Your task to perform on an android device: delete location history Image 0: 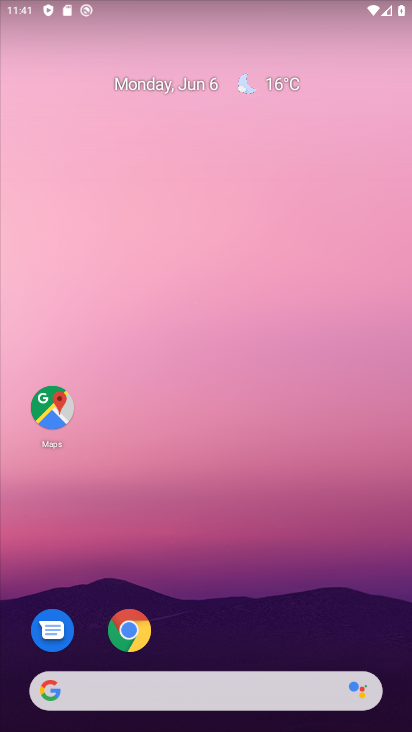
Step 0: drag from (198, 631) to (252, 91)
Your task to perform on an android device: delete location history Image 1: 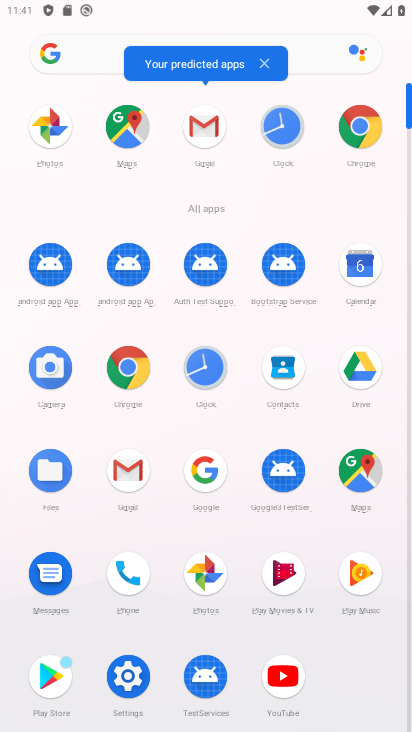
Step 1: click (124, 119)
Your task to perform on an android device: delete location history Image 2: 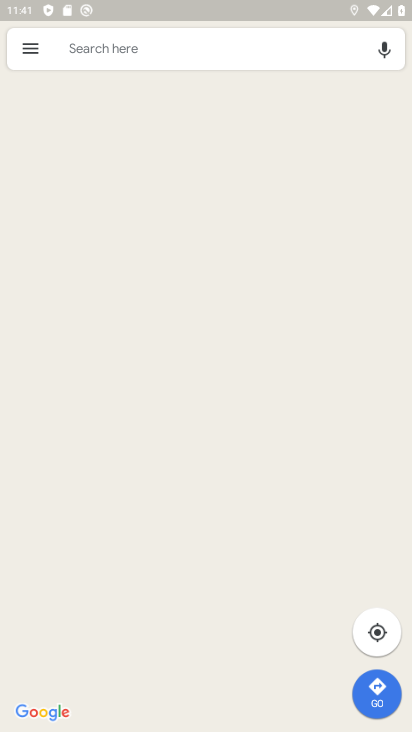
Step 2: click (28, 45)
Your task to perform on an android device: delete location history Image 3: 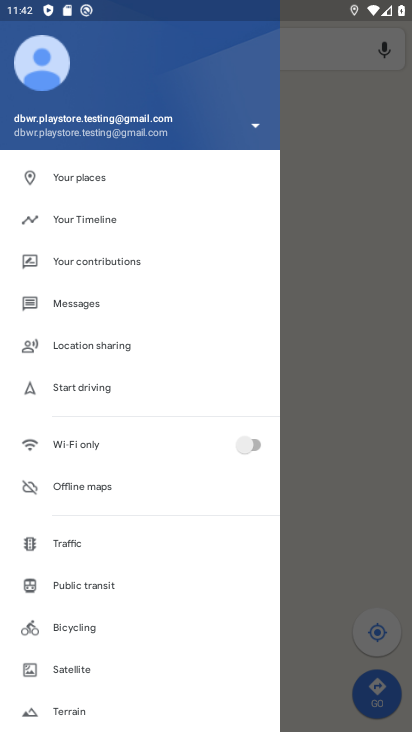
Step 3: click (115, 219)
Your task to perform on an android device: delete location history Image 4: 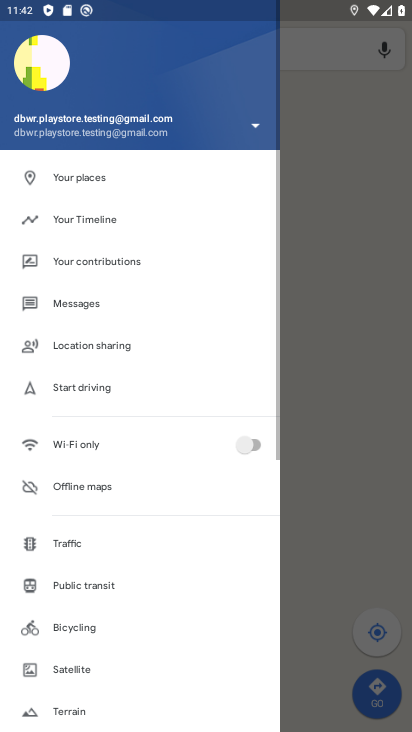
Step 4: click (91, 219)
Your task to perform on an android device: delete location history Image 5: 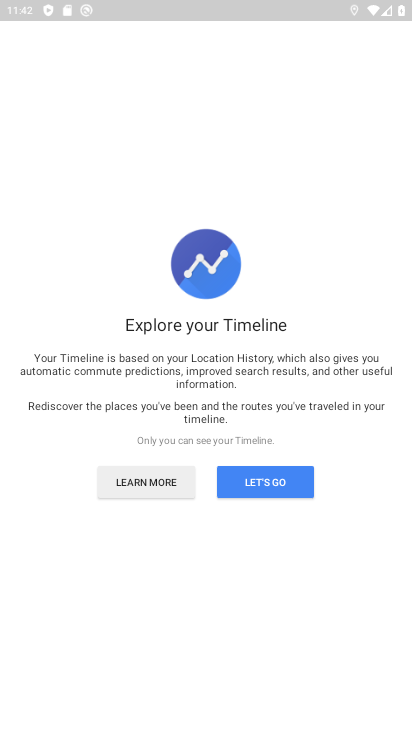
Step 5: click (263, 485)
Your task to perform on an android device: delete location history Image 6: 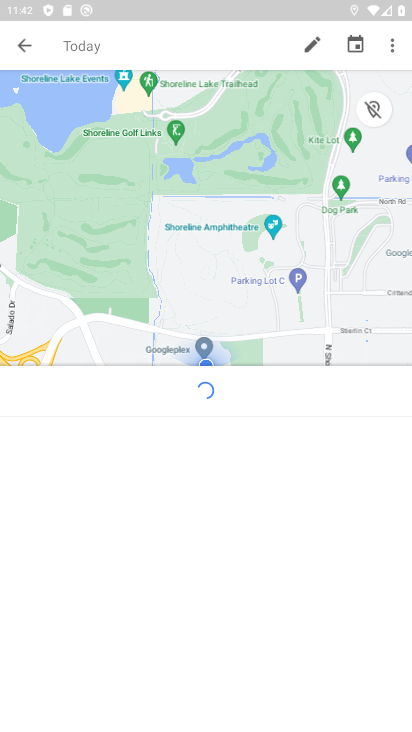
Step 6: click (392, 50)
Your task to perform on an android device: delete location history Image 7: 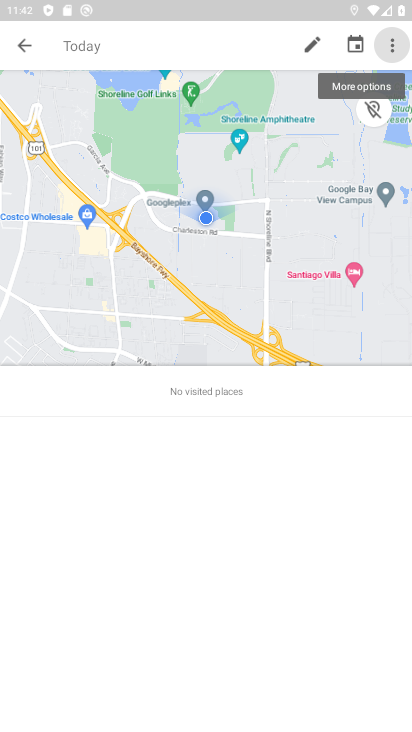
Step 7: click (391, 47)
Your task to perform on an android device: delete location history Image 8: 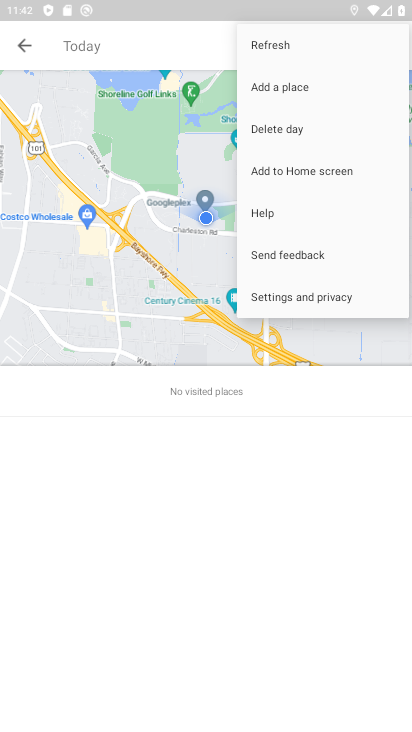
Step 8: click (301, 296)
Your task to perform on an android device: delete location history Image 9: 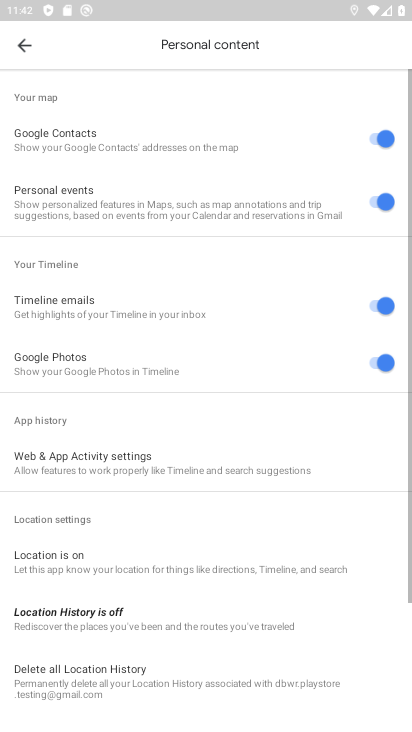
Step 9: click (143, 679)
Your task to perform on an android device: delete location history Image 10: 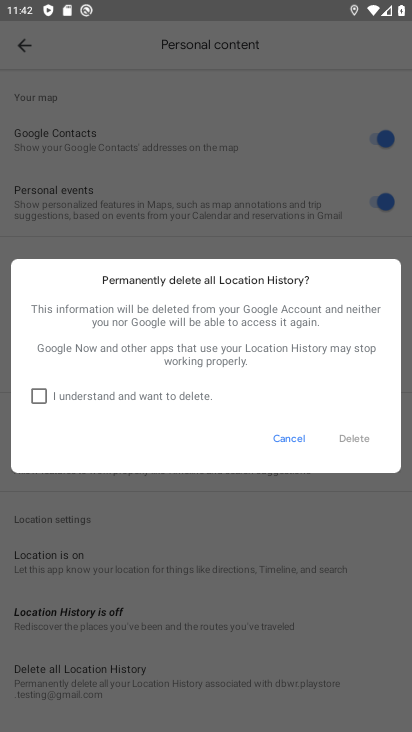
Step 10: click (45, 399)
Your task to perform on an android device: delete location history Image 11: 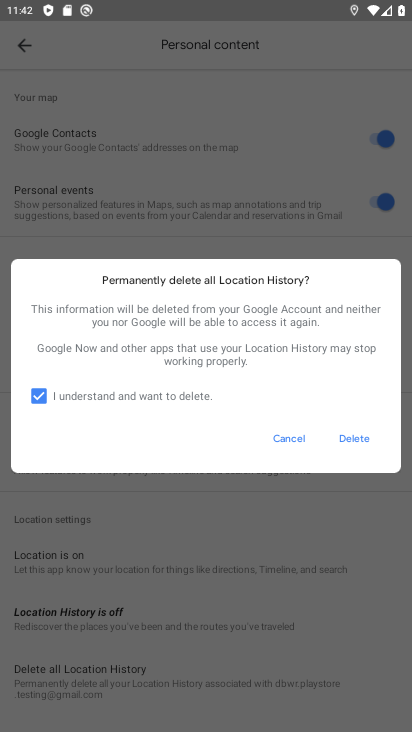
Step 11: click (364, 436)
Your task to perform on an android device: delete location history Image 12: 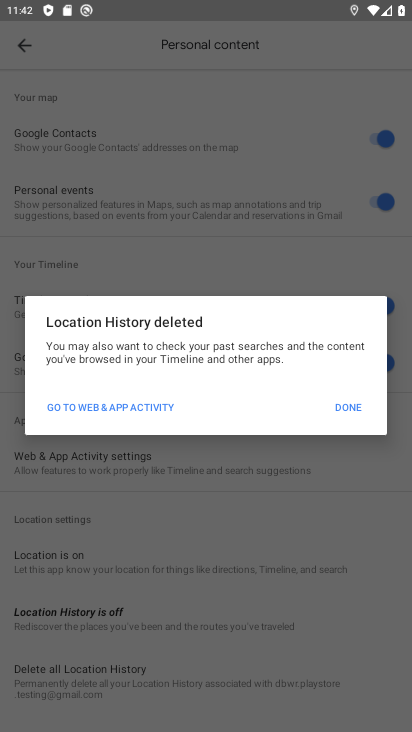
Step 12: click (334, 405)
Your task to perform on an android device: delete location history Image 13: 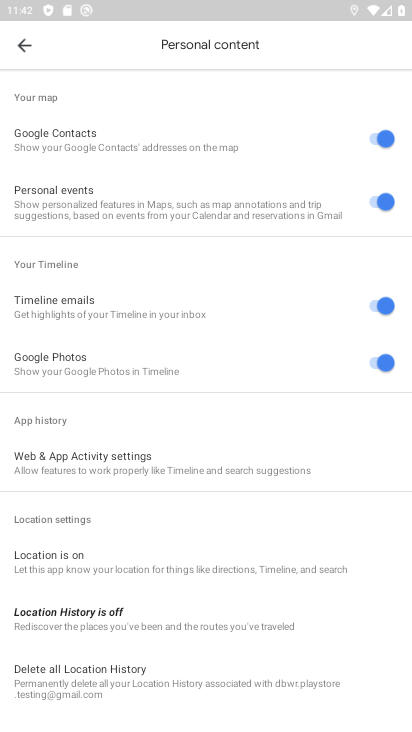
Step 13: task complete